Your task to perform on an android device: delete the emails in spam in the gmail app Image 0: 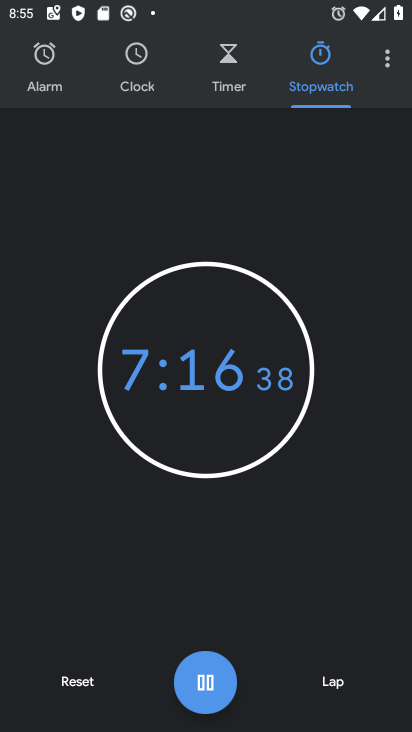
Step 0: press home button
Your task to perform on an android device: delete the emails in spam in the gmail app Image 1: 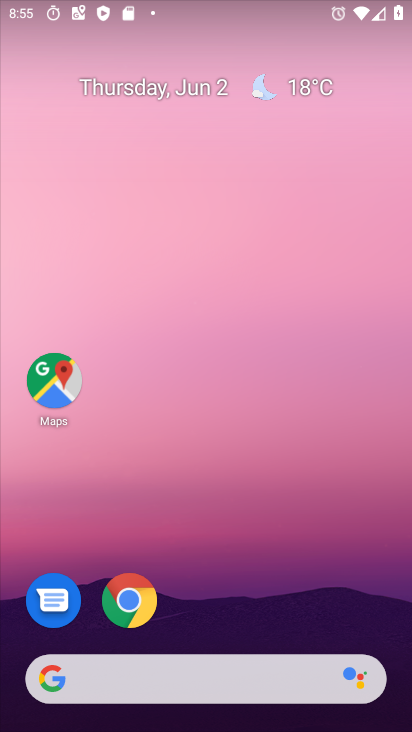
Step 1: drag from (376, 623) to (374, 190)
Your task to perform on an android device: delete the emails in spam in the gmail app Image 2: 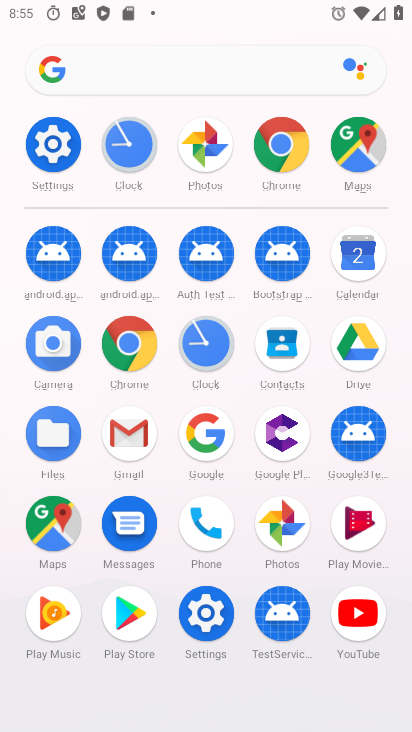
Step 2: click (133, 436)
Your task to perform on an android device: delete the emails in spam in the gmail app Image 3: 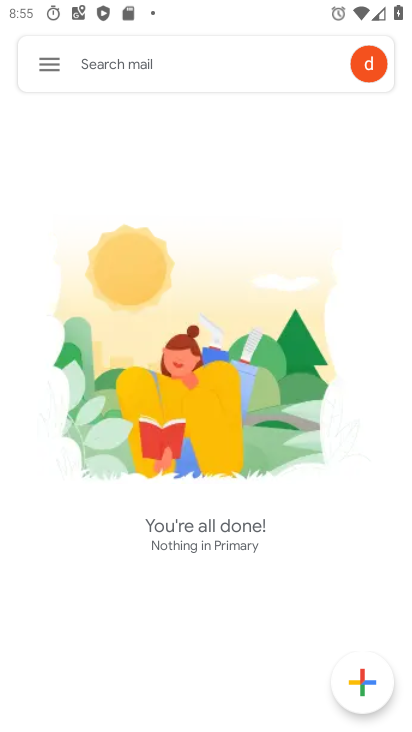
Step 3: click (59, 70)
Your task to perform on an android device: delete the emails in spam in the gmail app Image 4: 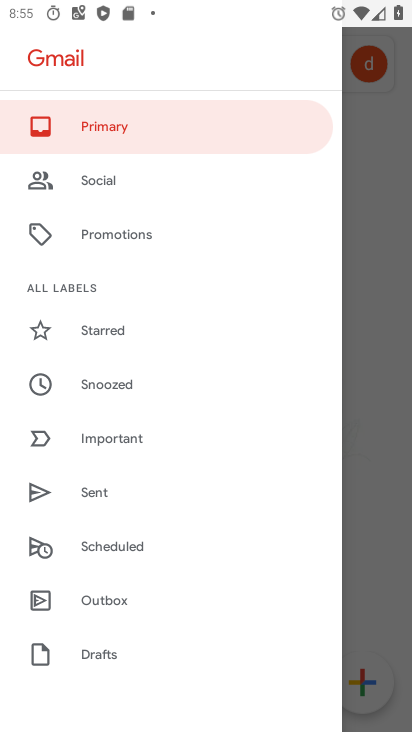
Step 4: drag from (232, 422) to (253, 304)
Your task to perform on an android device: delete the emails in spam in the gmail app Image 5: 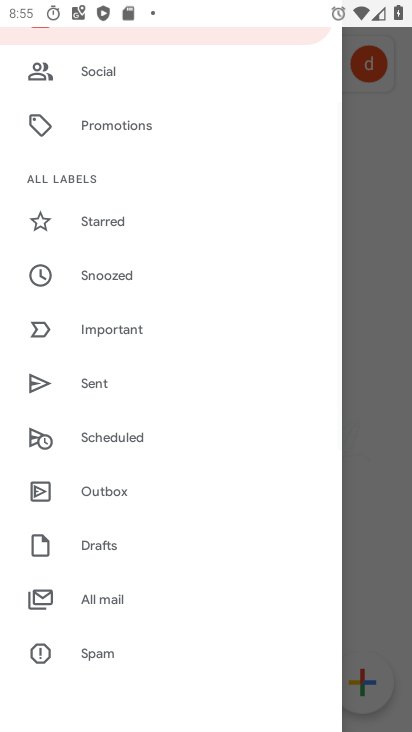
Step 5: drag from (255, 534) to (267, 401)
Your task to perform on an android device: delete the emails in spam in the gmail app Image 6: 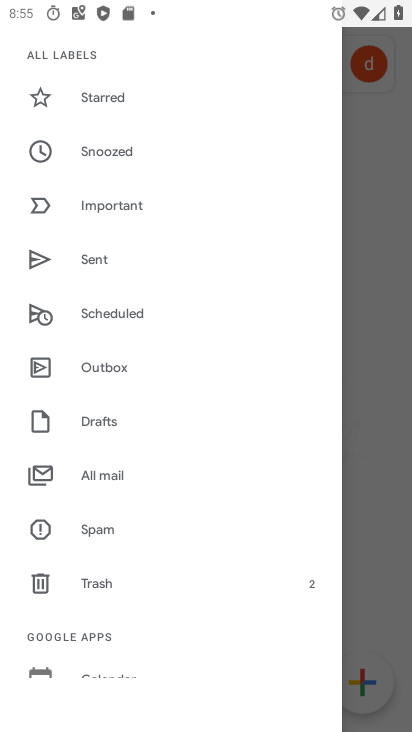
Step 6: drag from (243, 568) to (256, 325)
Your task to perform on an android device: delete the emails in spam in the gmail app Image 7: 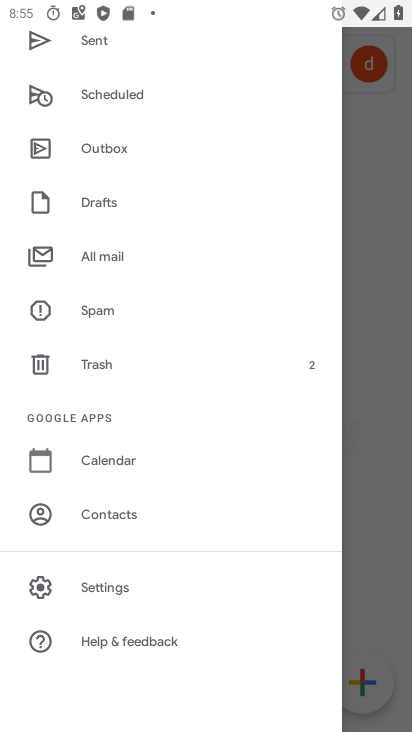
Step 7: drag from (259, 269) to (256, 417)
Your task to perform on an android device: delete the emails in spam in the gmail app Image 8: 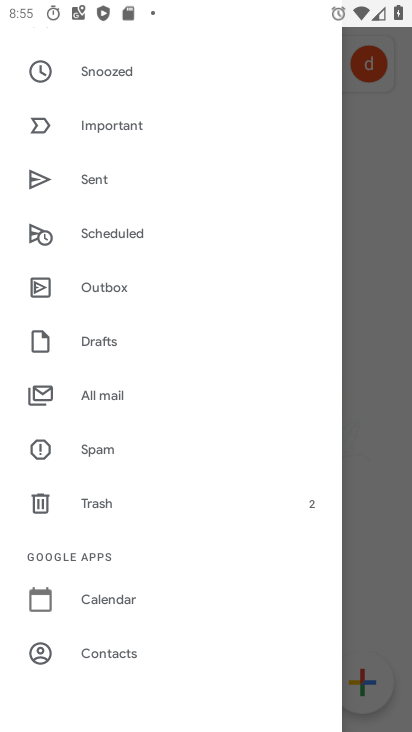
Step 8: drag from (263, 281) to (259, 440)
Your task to perform on an android device: delete the emails in spam in the gmail app Image 9: 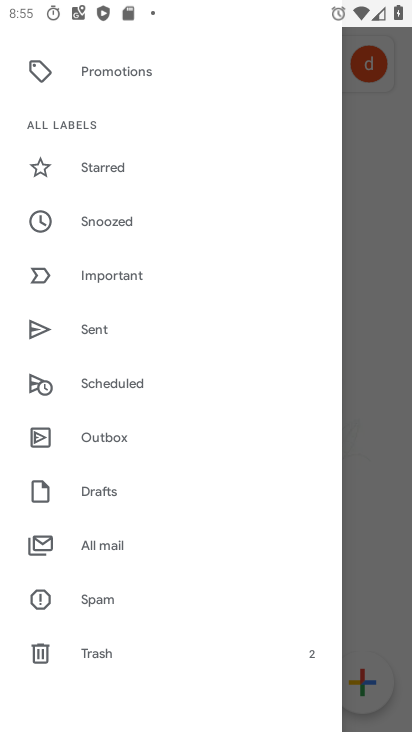
Step 9: drag from (276, 230) to (260, 398)
Your task to perform on an android device: delete the emails in spam in the gmail app Image 10: 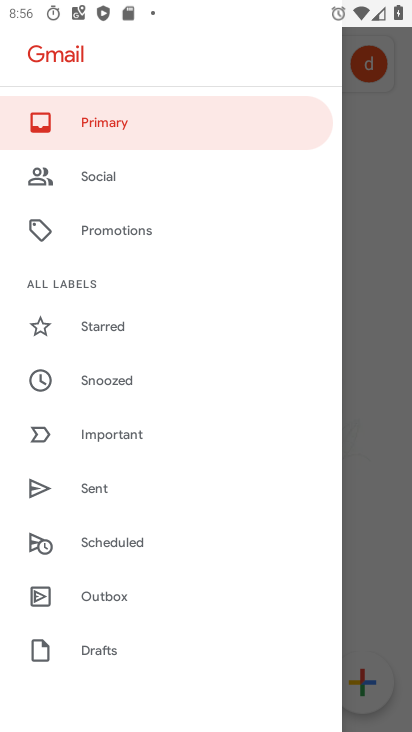
Step 10: click (192, 142)
Your task to perform on an android device: delete the emails in spam in the gmail app Image 11: 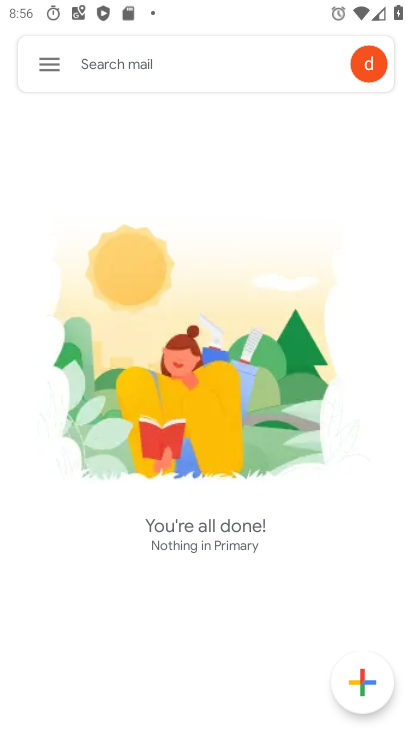
Step 11: task complete